Your task to perform on an android device: Go to accessibility settings Image 0: 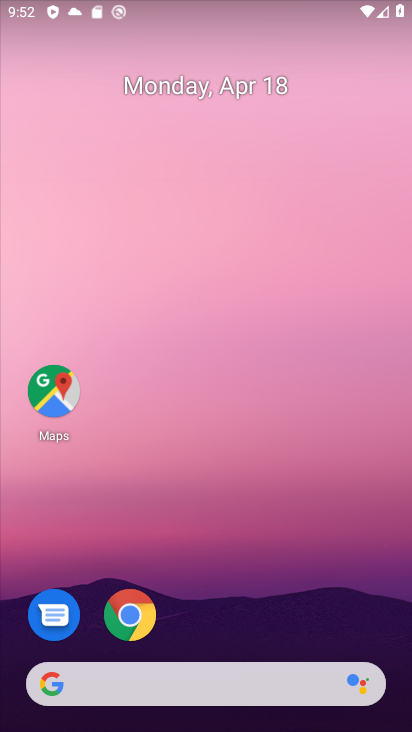
Step 0: drag from (349, 619) to (339, 5)
Your task to perform on an android device: Go to accessibility settings Image 1: 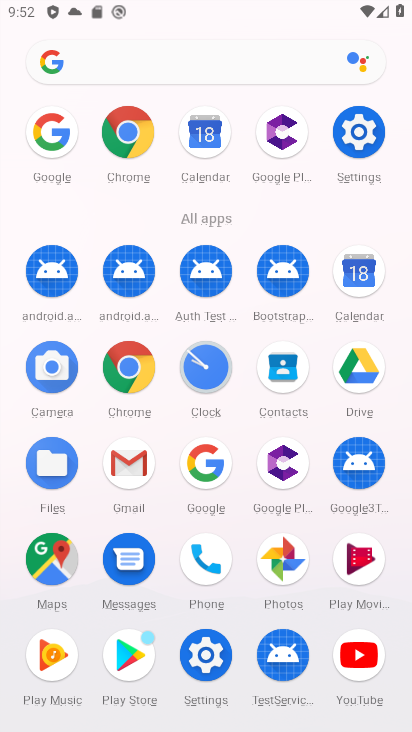
Step 1: click (358, 136)
Your task to perform on an android device: Go to accessibility settings Image 2: 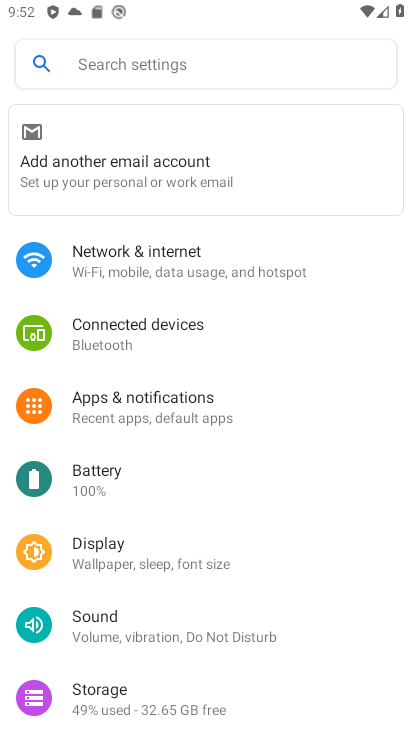
Step 2: drag from (278, 595) to (288, 248)
Your task to perform on an android device: Go to accessibility settings Image 3: 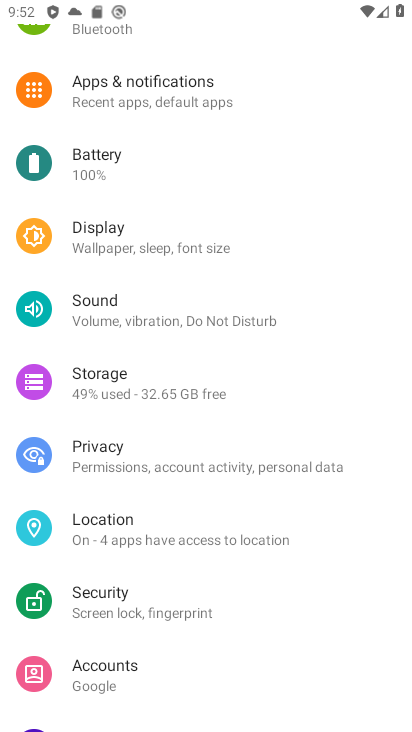
Step 3: drag from (308, 524) to (303, 214)
Your task to perform on an android device: Go to accessibility settings Image 4: 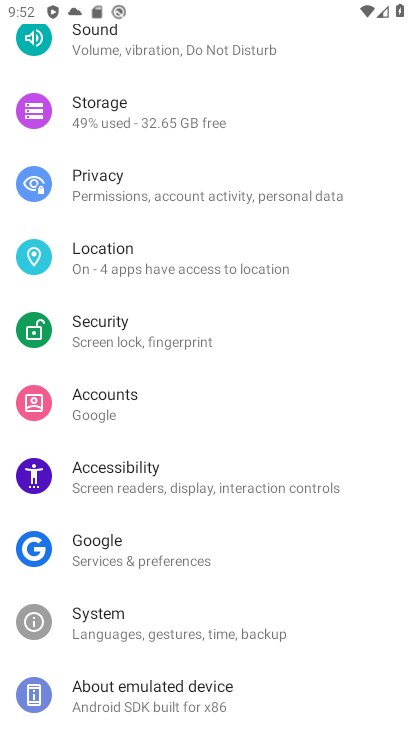
Step 4: click (134, 482)
Your task to perform on an android device: Go to accessibility settings Image 5: 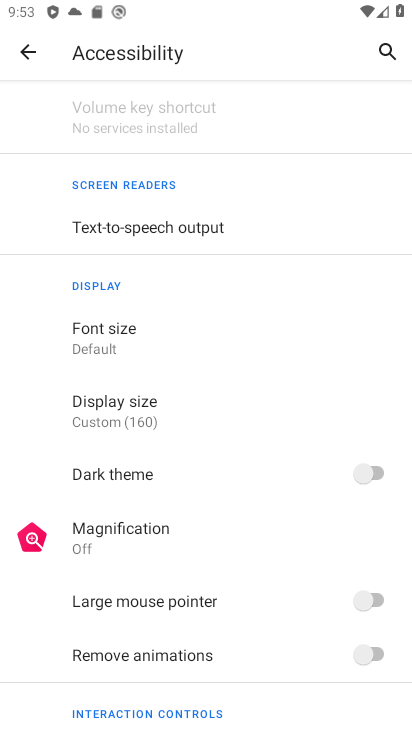
Step 5: task complete